Your task to perform on an android device: open app "TextNow: Call + Text Unlimited" (install if not already installed) Image 0: 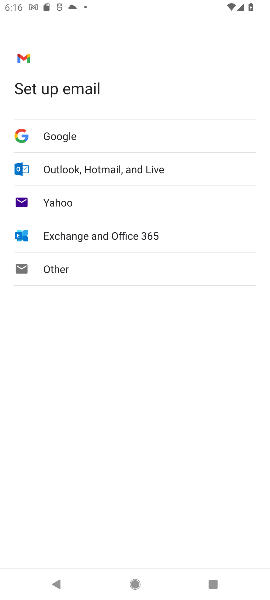
Step 0: press home button
Your task to perform on an android device: open app "TextNow: Call + Text Unlimited" (install if not already installed) Image 1: 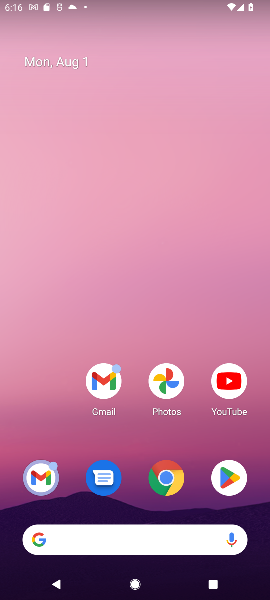
Step 1: click (244, 478)
Your task to perform on an android device: open app "TextNow: Call + Text Unlimited" (install if not already installed) Image 2: 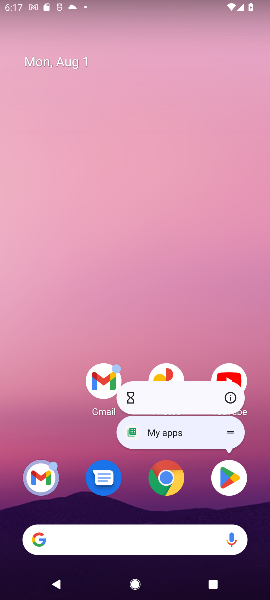
Step 2: click (233, 480)
Your task to perform on an android device: open app "TextNow: Call + Text Unlimited" (install if not already installed) Image 3: 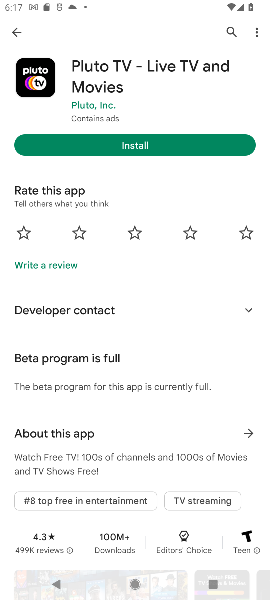
Step 3: click (228, 33)
Your task to perform on an android device: open app "TextNow: Call + Text Unlimited" (install if not already installed) Image 4: 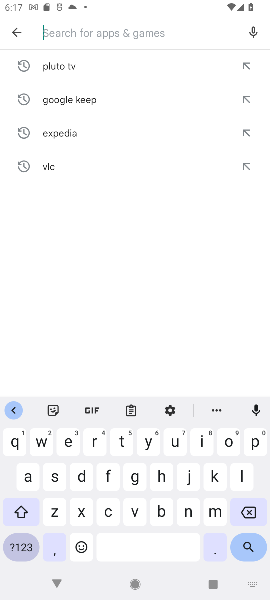
Step 4: click (125, 444)
Your task to perform on an android device: open app "TextNow: Call + Text Unlimited" (install if not already installed) Image 5: 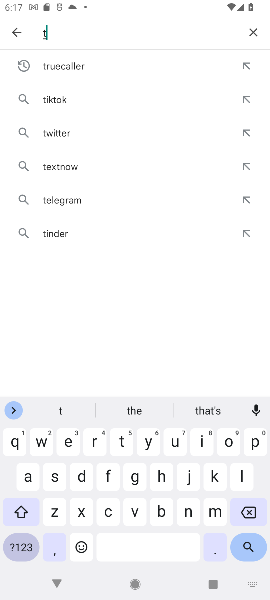
Step 5: click (71, 441)
Your task to perform on an android device: open app "TextNow: Call + Text Unlimited" (install if not already installed) Image 6: 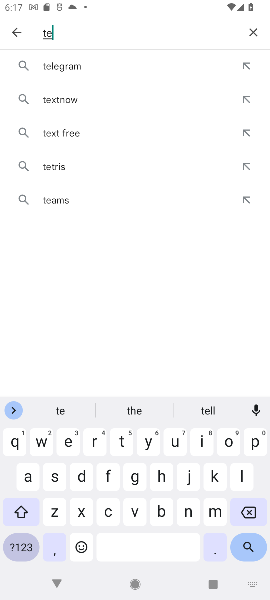
Step 6: click (84, 518)
Your task to perform on an android device: open app "TextNow: Call + Text Unlimited" (install if not already installed) Image 7: 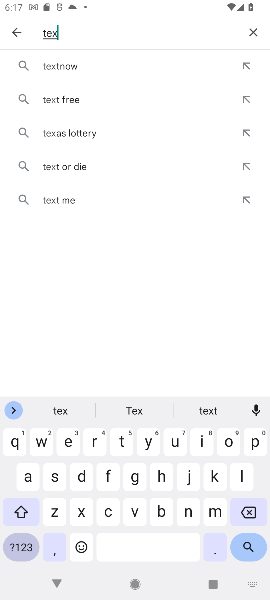
Step 7: click (82, 66)
Your task to perform on an android device: open app "TextNow: Call + Text Unlimited" (install if not already installed) Image 8: 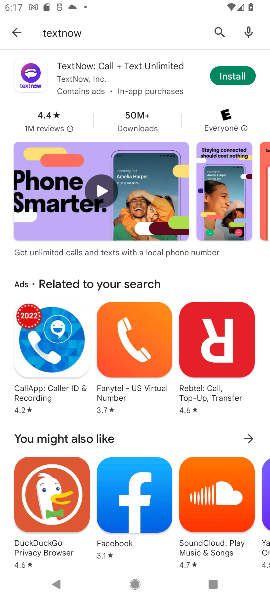
Step 8: click (232, 75)
Your task to perform on an android device: open app "TextNow: Call + Text Unlimited" (install if not already installed) Image 9: 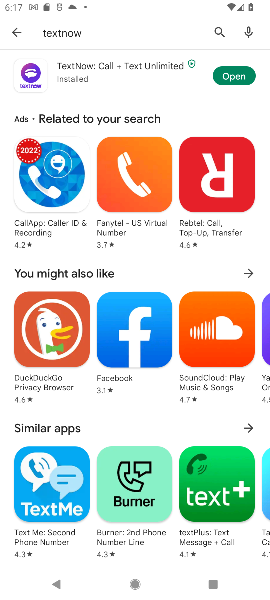
Step 9: click (233, 70)
Your task to perform on an android device: open app "TextNow: Call + Text Unlimited" (install if not already installed) Image 10: 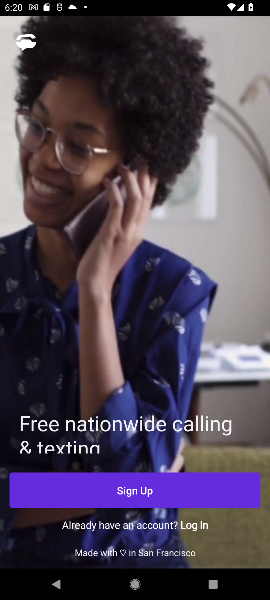
Step 10: task complete